Your task to perform on an android device: turn notification dots off Image 0: 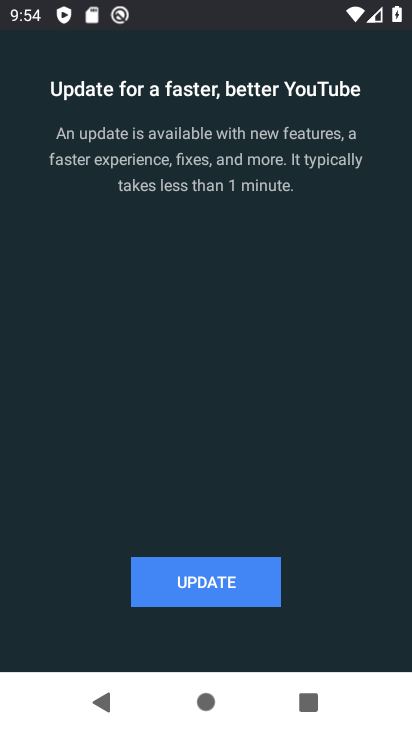
Step 0: press home button
Your task to perform on an android device: turn notification dots off Image 1: 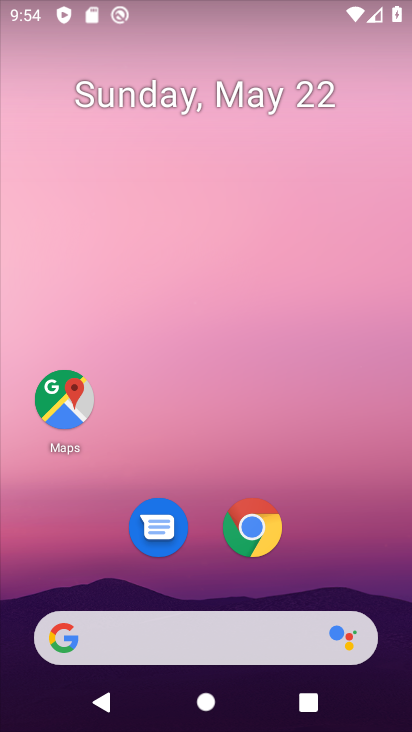
Step 1: drag from (376, 548) to (310, 153)
Your task to perform on an android device: turn notification dots off Image 2: 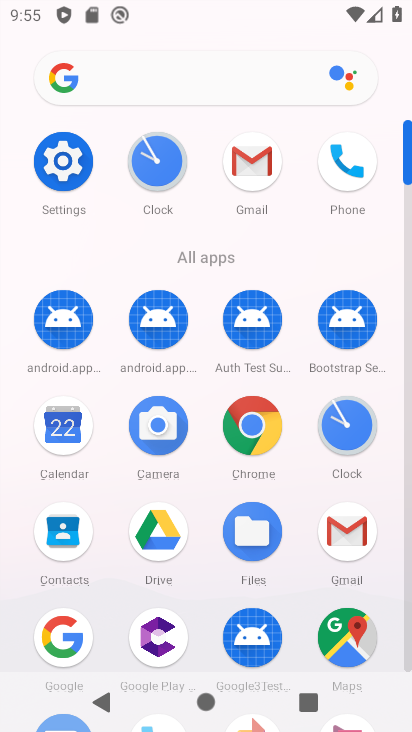
Step 2: click (88, 173)
Your task to perform on an android device: turn notification dots off Image 3: 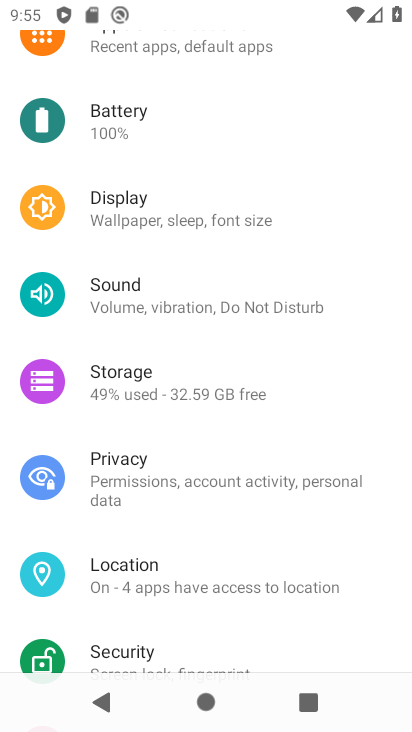
Step 3: drag from (226, 68) to (288, 437)
Your task to perform on an android device: turn notification dots off Image 4: 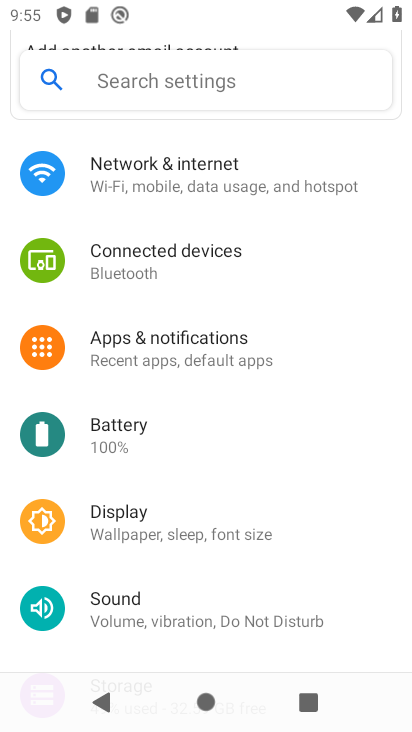
Step 4: click (209, 341)
Your task to perform on an android device: turn notification dots off Image 5: 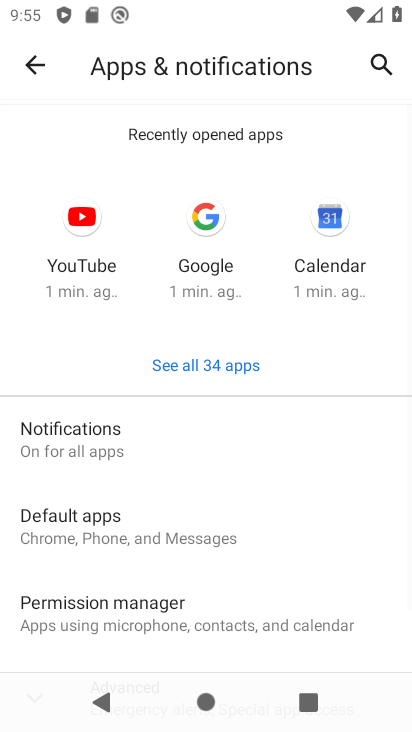
Step 5: click (191, 467)
Your task to perform on an android device: turn notification dots off Image 6: 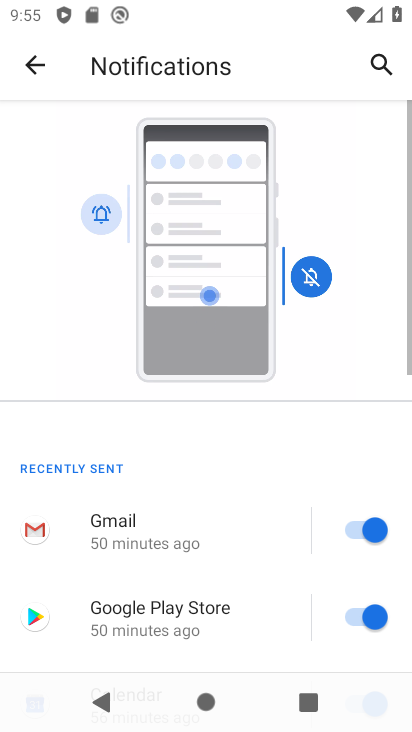
Step 6: click (32, 62)
Your task to perform on an android device: turn notification dots off Image 7: 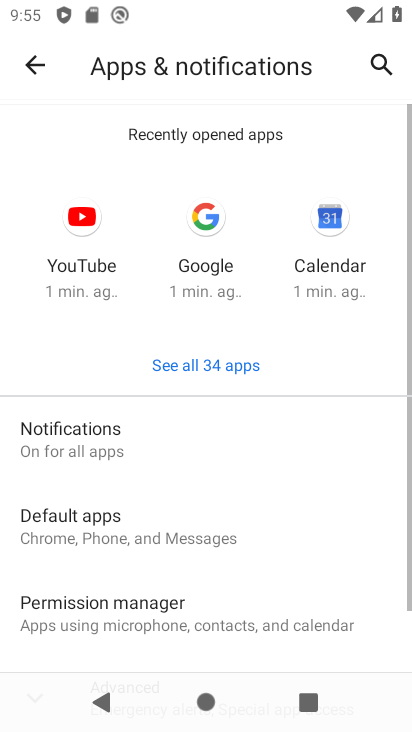
Step 7: drag from (149, 588) to (174, 319)
Your task to perform on an android device: turn notification dots off Image 8: 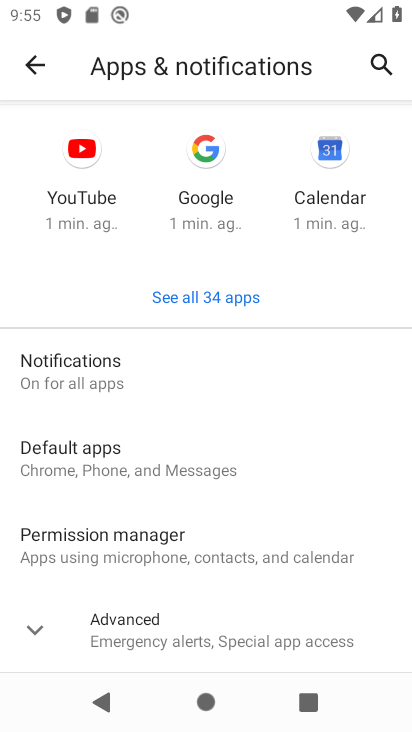
Step 8: click (178, 596)
Your task to perform on an android device: turn notification dots off Image 9: 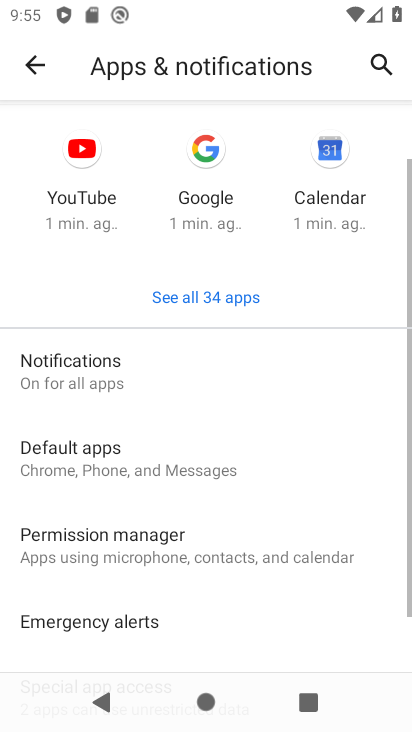
Step 9: click (135, 377)
Your task to perform on an android device: turn notification dots off Image 10: 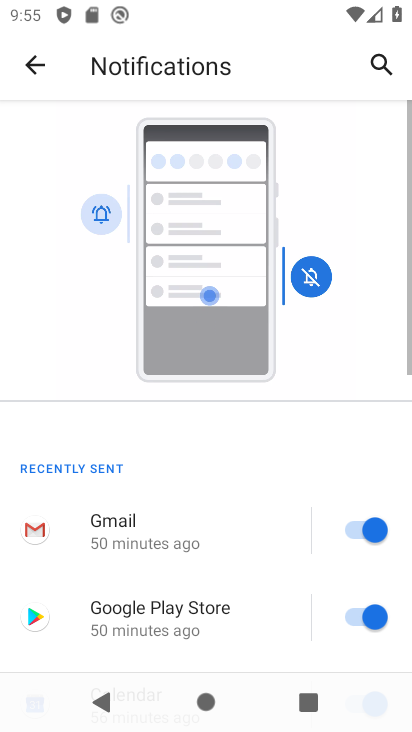
Step 10: drag from (205, 571) to (246, 291)
Your task to perform on an android device: turn notification dots off Image 11: 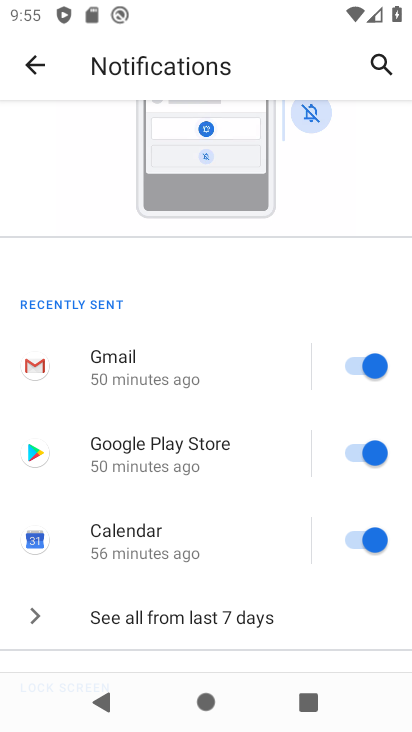
Step 11: drag from (240, 623) to (240, 326)
Your task to perform on an android device: turn notification dots off Image 12: 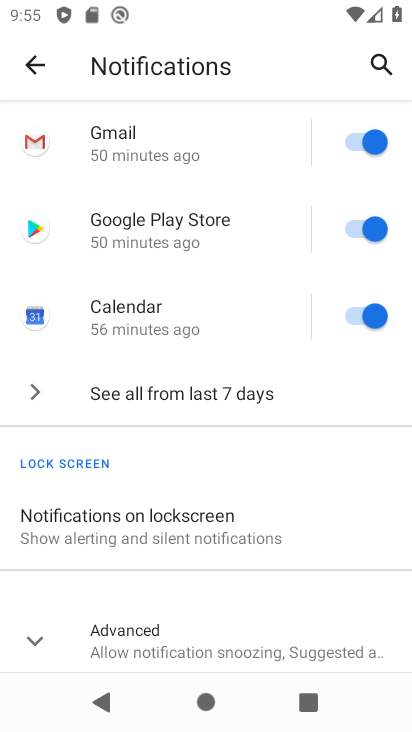
Step 12: click (212, 652)
Your task to perform on an android device: turn notification dots off Image 13: 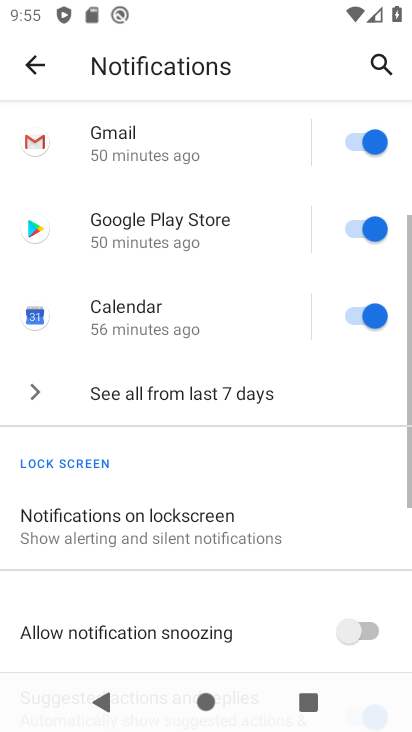
Step 13: drag from (238, 611) to (292, 274)
Your task to perform on an android device: turn notification dots off Image 14: 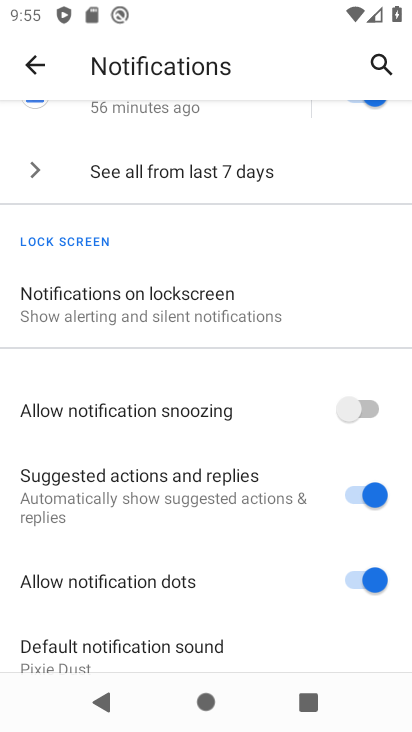
Step 14: click (350, 561)
Your task to perform on an android device: turn notification dots off Image 15: 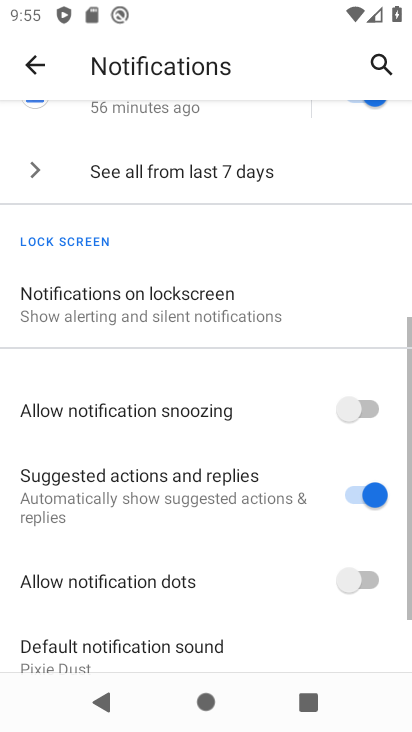
Step 15: task complete